Your task to perform on an android device: set the stopwatch Image 0: 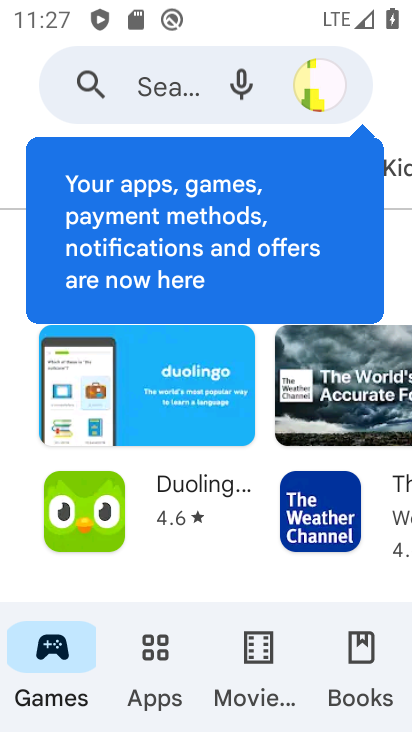
Step 0: press home button
Your task to perform on an android device: set the stopwatch Image 1: 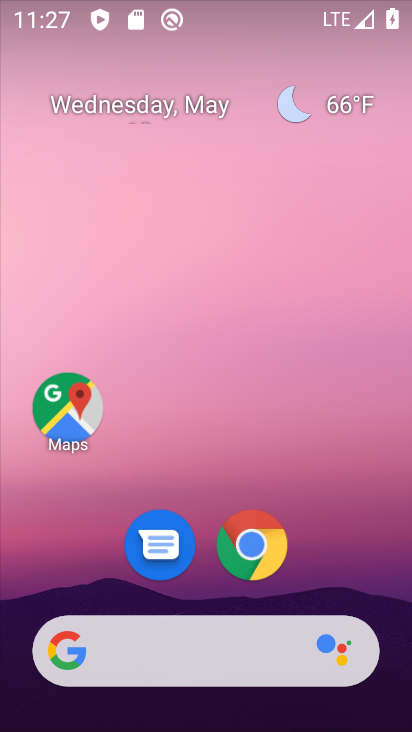
Step 1: drag from (125, 696) to (234, 36)
Your task to perform on an android device: set the stopwatch Image 2: 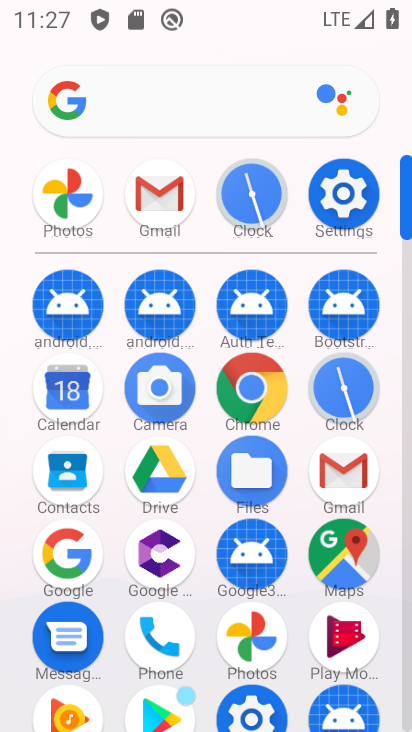
Step 2: click (341, 391)
Your task to perform on an android device: set the stopwatch Image 3: 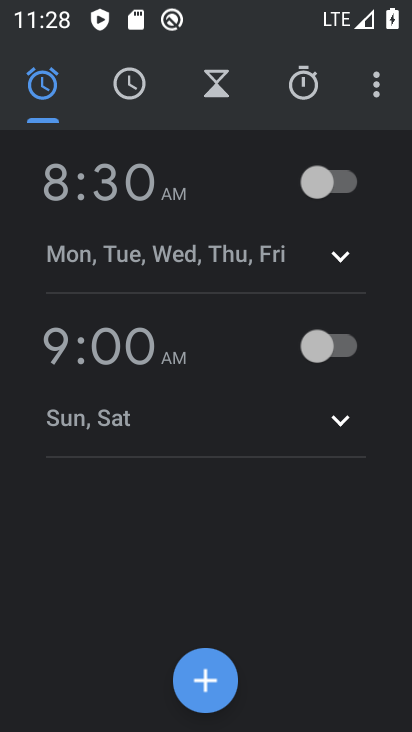
Step 3: click (304, 77)
Your task to perform on an android device: set the stopwatch Image 4: 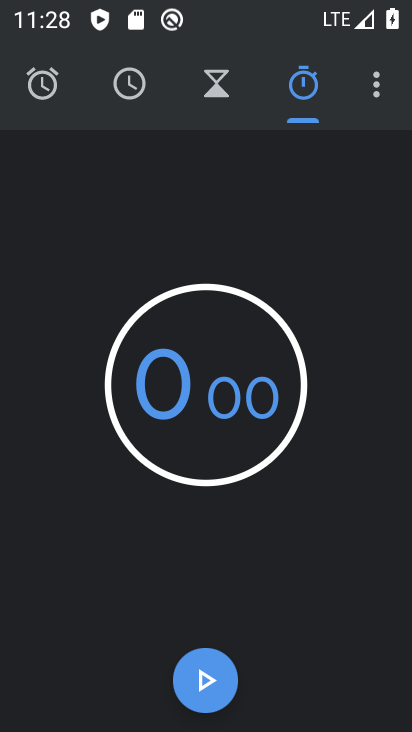
Step 4: task complete